Your task to perform on an android device: Open Google Chrome Image 0: 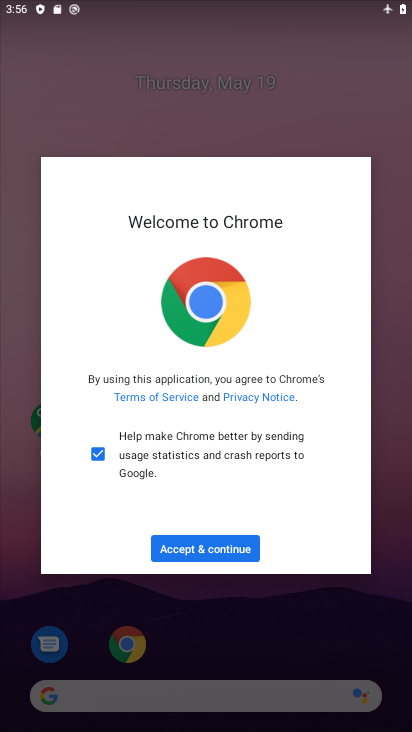
Step 0: click (207, 543)
Your task to perform on an android device: Open Google Chrome Image 1: 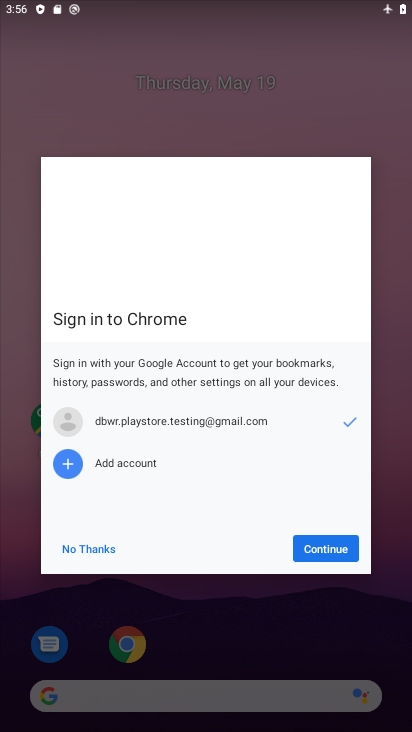
Step 1: click (315, 541)
Your task to perform on an android device: Open Google Chrome Image 2: 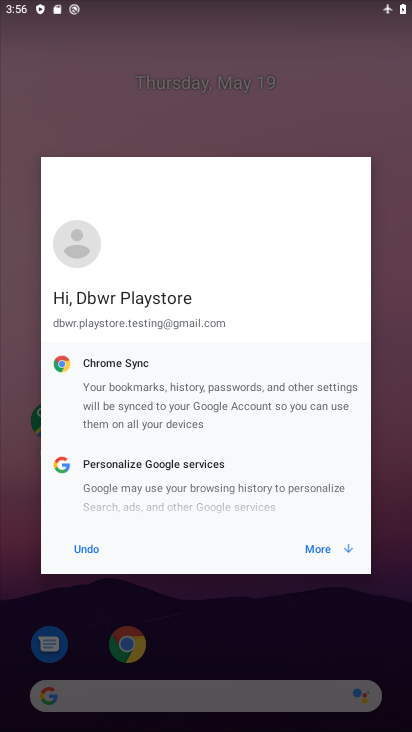
Step 2: click (315, 541)
Your task to perform on an android device: Open Google Chrome Image 3: 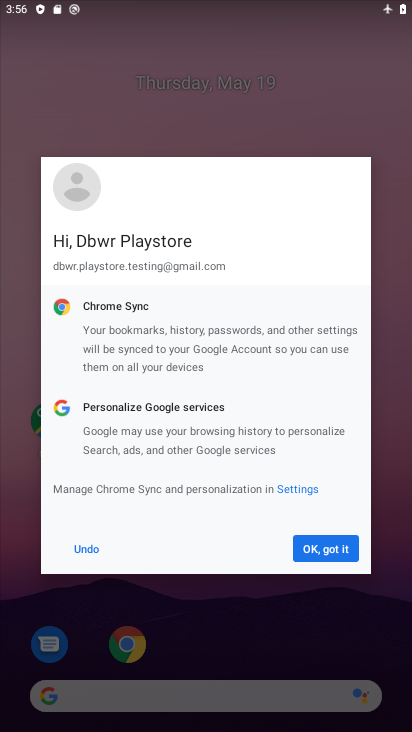
Step 3: click (315, 541)
Your task to perform on an android device: Open Google Chrome Image 4: 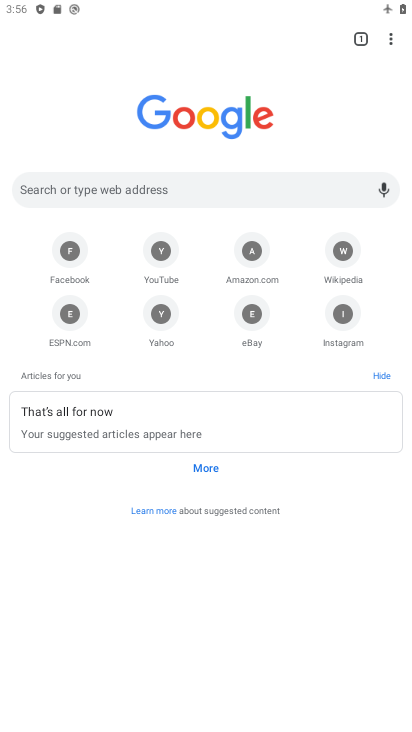
Step 4: task complete